Your task to perform on an android device: change text size in settings app Image 0: 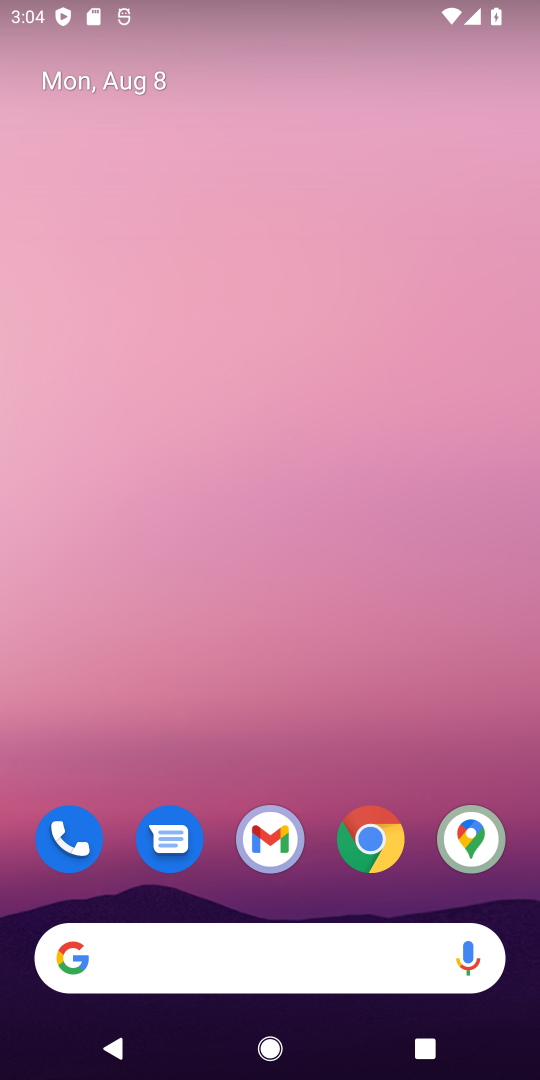
Step 0: drag from (244, 893) to (454, 156)
Your task to perform on an android device: change text size in settings app Image 1: 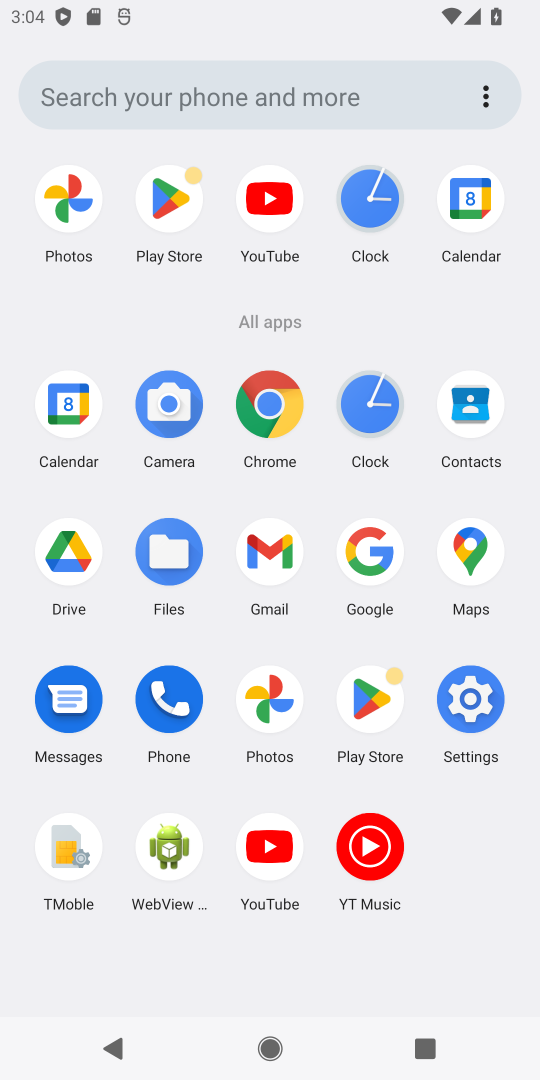
Step 1: click (496, 708)
Your task to perform on an android device: change text size in settings app Image 2: 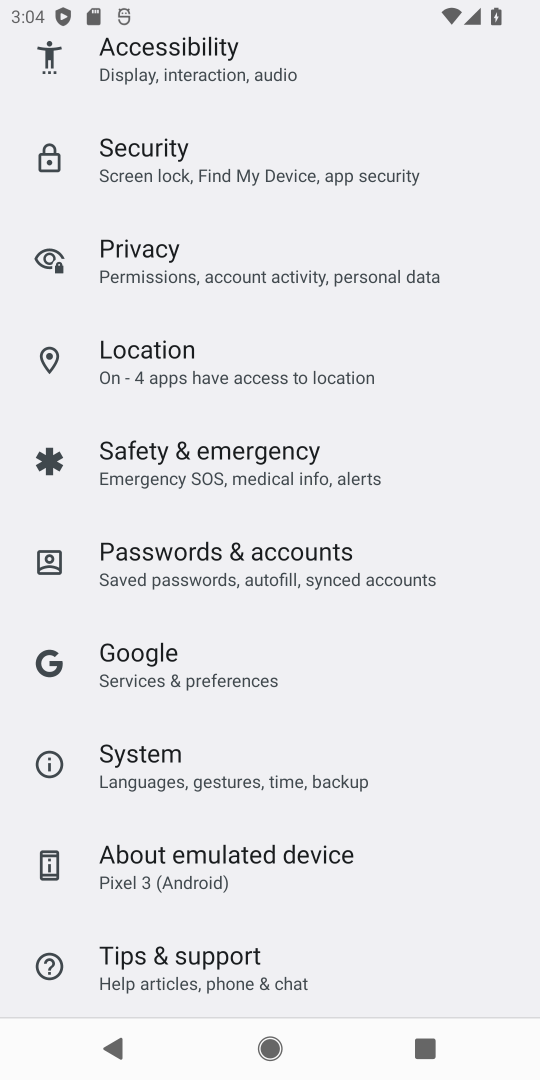
Step 2: drag from (129, 444) to (99, 894)
Your task to perform on an android device: change text size in settings app Image 3: 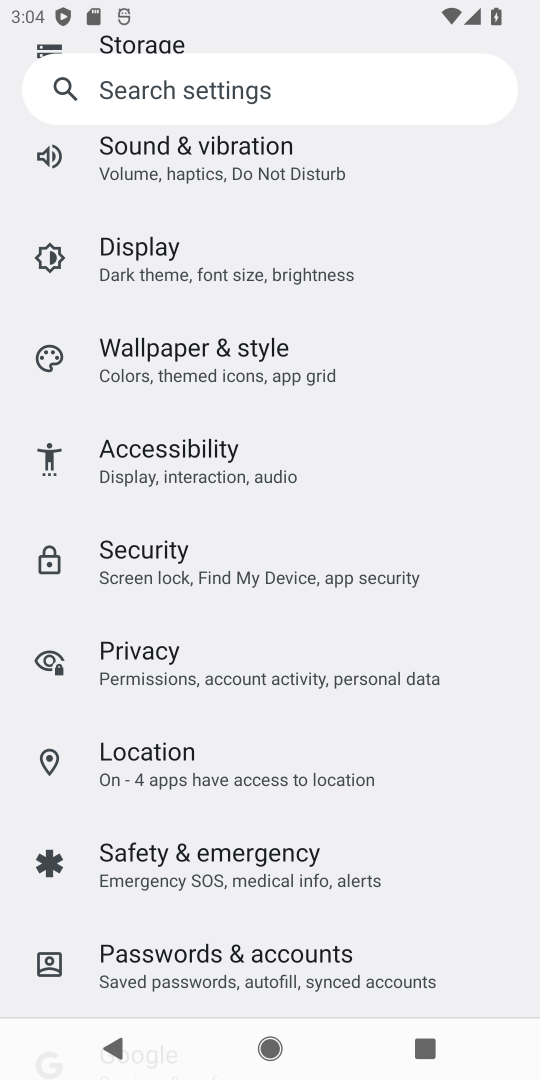
Step 3: click (139, 284)
Your task to perform on an android device: change text size in settings app Image 4: 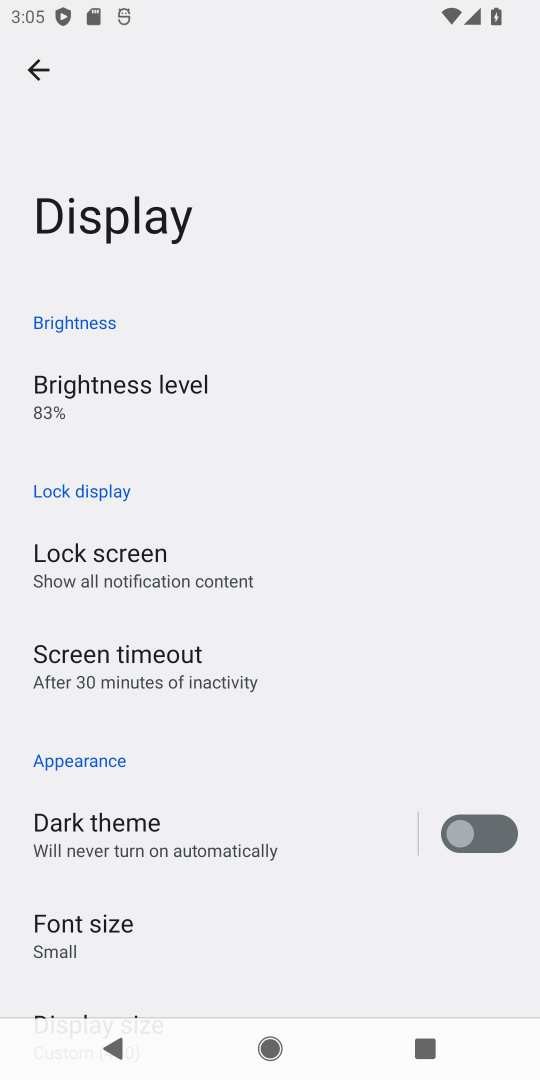
Step 4: drag from (307, 692) to (287, 181)
Your task to perform on an android device: change text size in settings app Image 5: 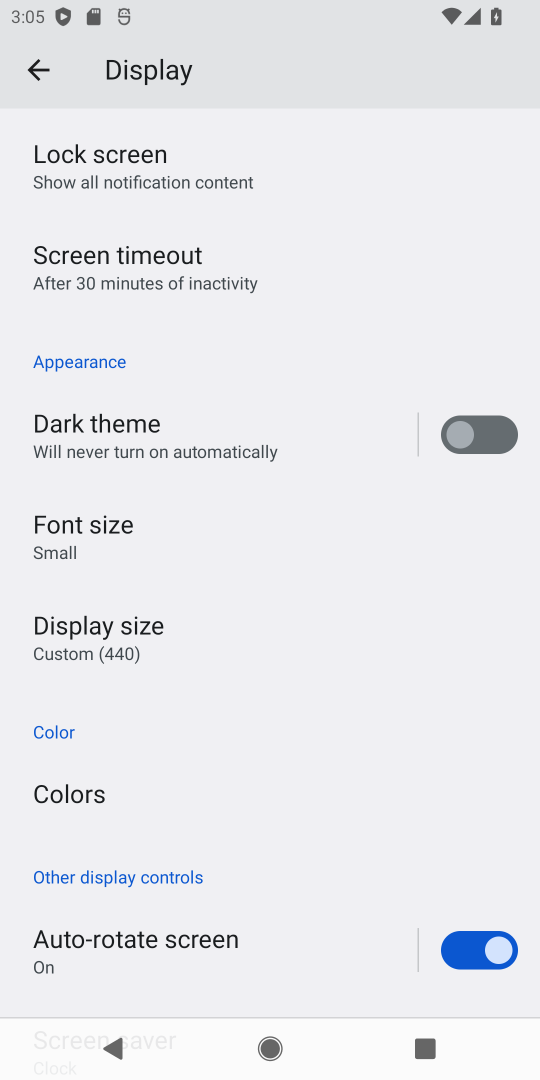
Step 5: click (115, 545)
Your task to perform on an android device: change text size in settings app Image 6: 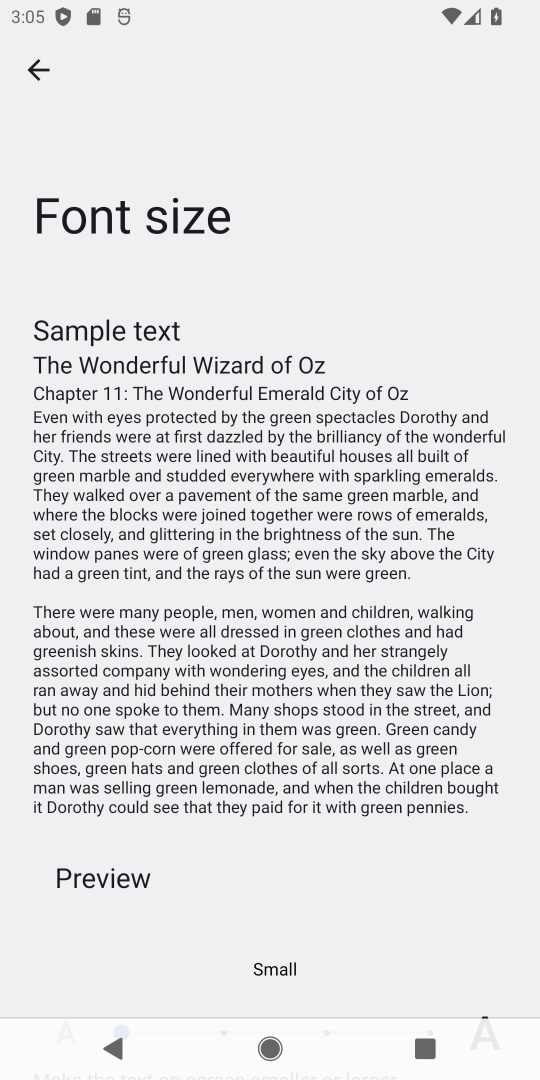
Step 6: drag from (434, 954) to (375, 355)
Your task to perform on an android device: change text size in settings app Image 7: 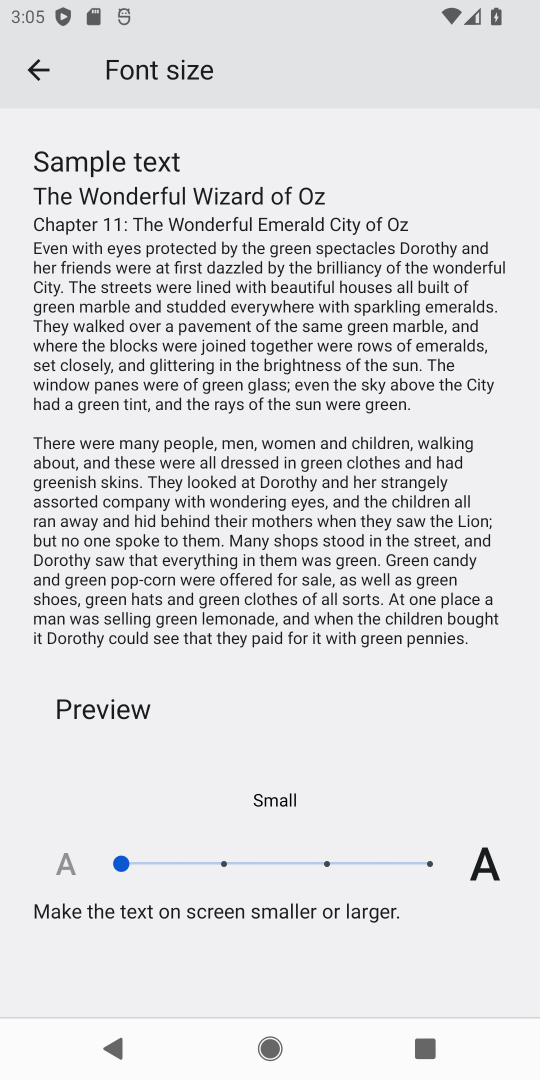
Step 7: click (213, 861)
Your task to perform on an android device: change text size in settings app Image 8: 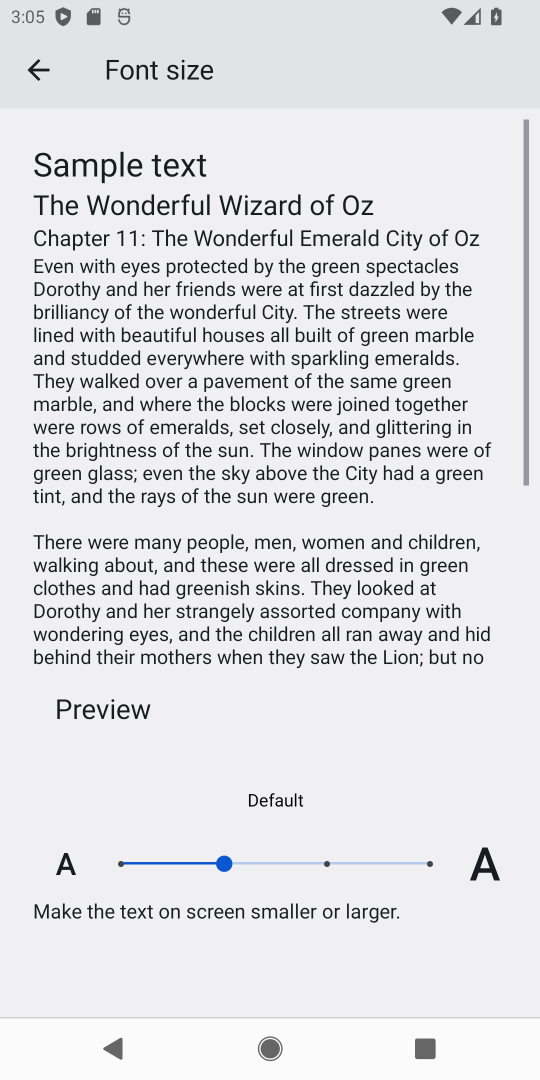
Step 8: task complete